Your task to perform on an android device: Go to Amazon Image 0: 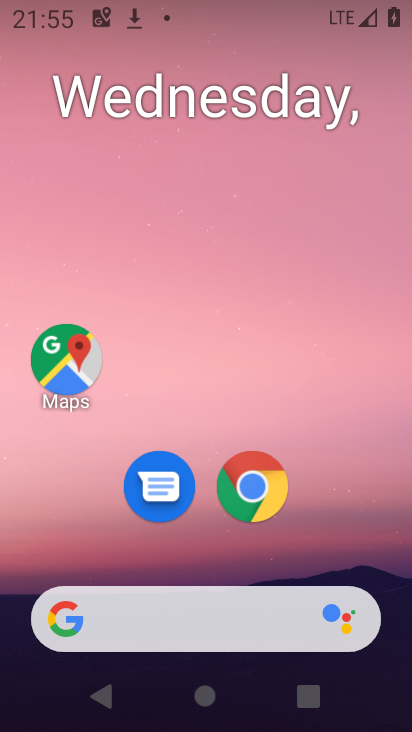
Step 0: click (249, 485)
Your task to perform on an android device: Go to Amazon Image 1: 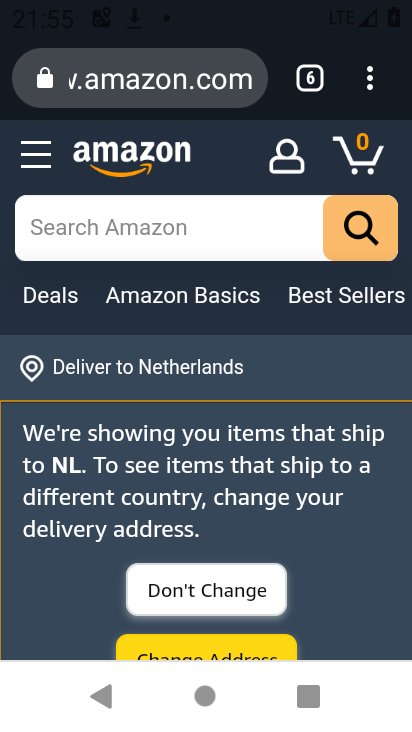
Step 1: click (310, 56)
Your task to perform on an android device: Go to Amazon Image 2: 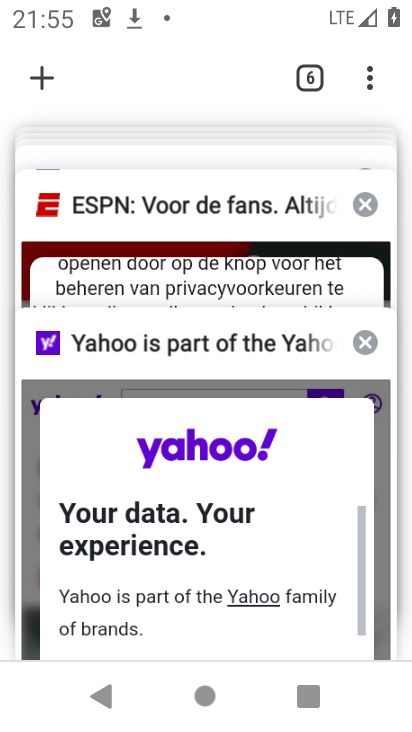
Step 2: drag from (190, 202) to (122, 649)
Your task to perform on an android device: Go to Amazon Image 3: 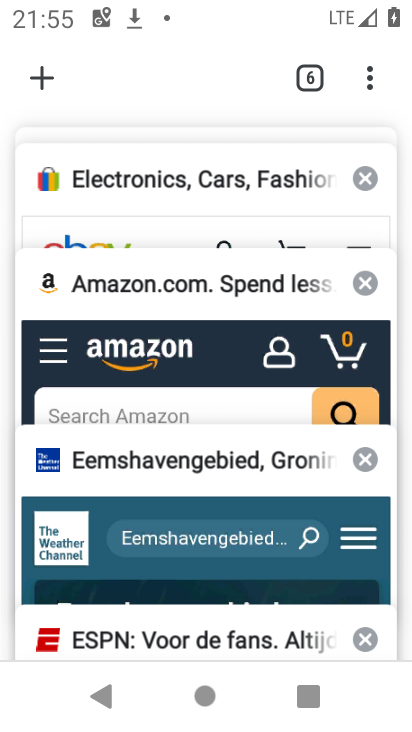
Step 3: click (72, 298)
Your task to perform on an android device: Go to Amazon Image 4: 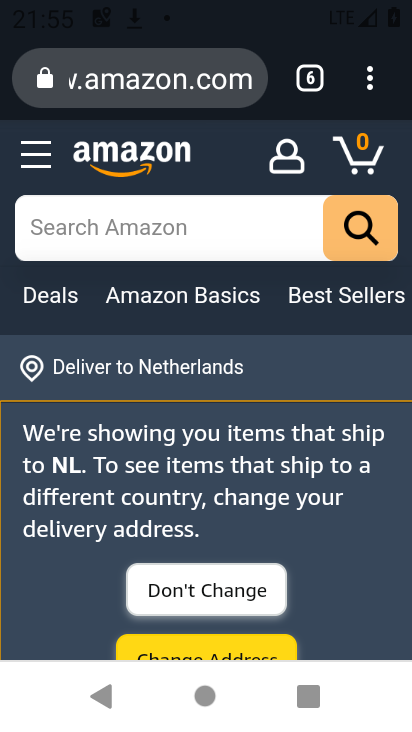
Step 4: task complete